Your task to perform on an android device: clear all cookies in the chrome app Image 0: 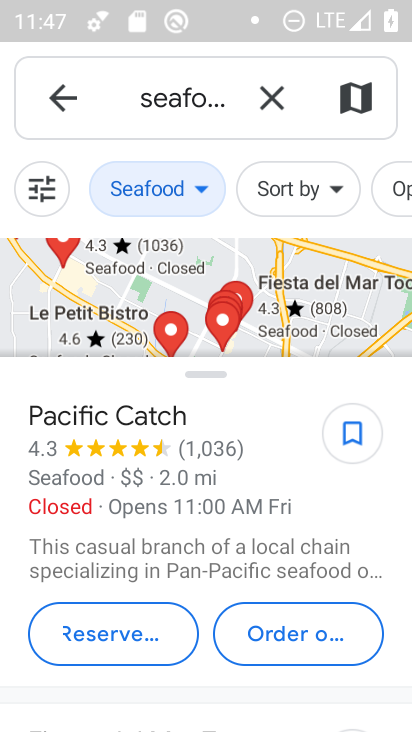
Step 0: press home button
Your task to perform on an android device: clear all cookies in the chrome app Image 1: 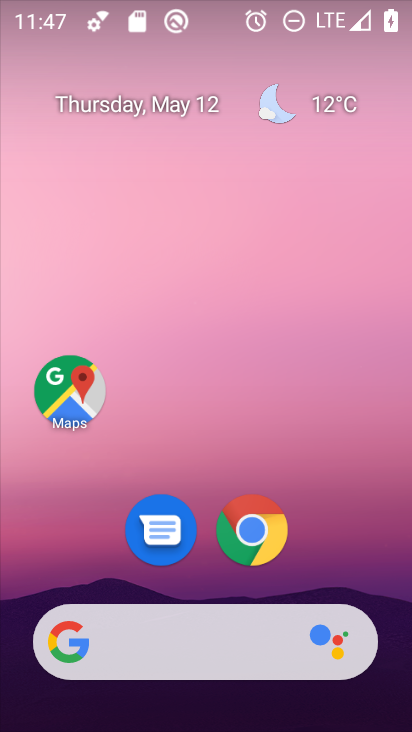
Step 1: drag from (246, 617) to (313, 287)
Your task to perform on an android device: clear all cookies in the chrome app Image 2: 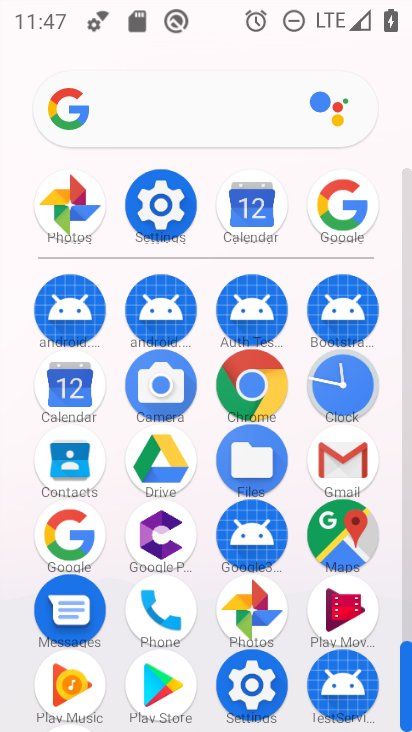
Step 2: click (245, 386)
Your task to perform on an android device: clear all cookies in the chrome app Image 3: 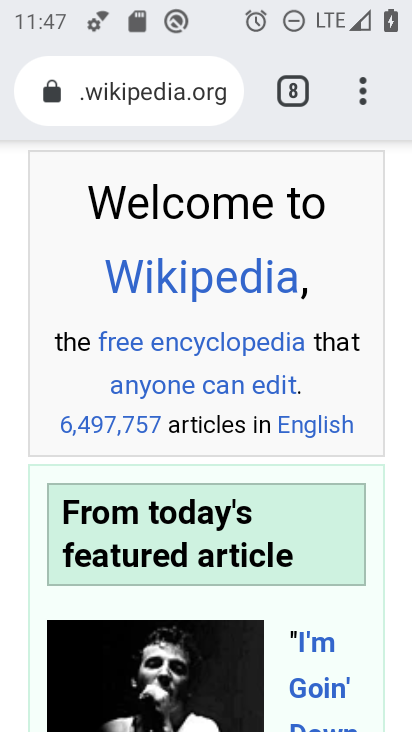
Step 3: drag from (368, 100) to (230, 551)
Your task to perform on an android device: clear all cookies in the chrome app Image 4: 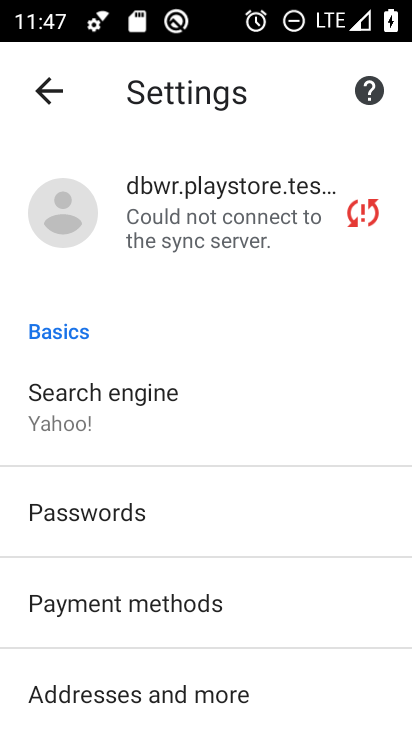
Step 4: drag from (209, 569) to (320, 268)
Your task to perform on an android device: clear all cookies in the chrome app Image 5: 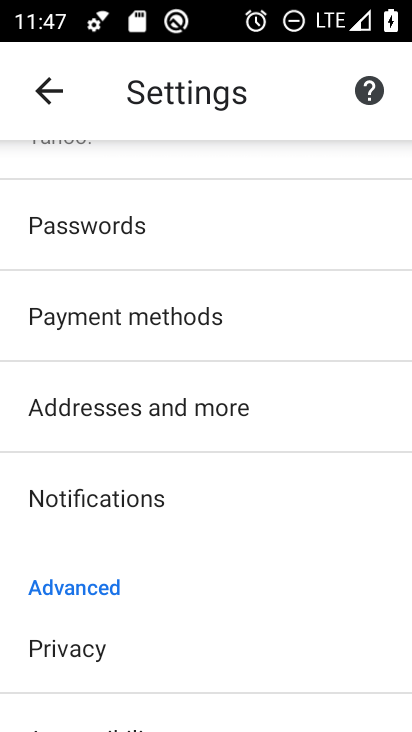
Step 5: click (90, 645)
Your task to perform on an android device: clear all cookies in the chrome app Image 6: 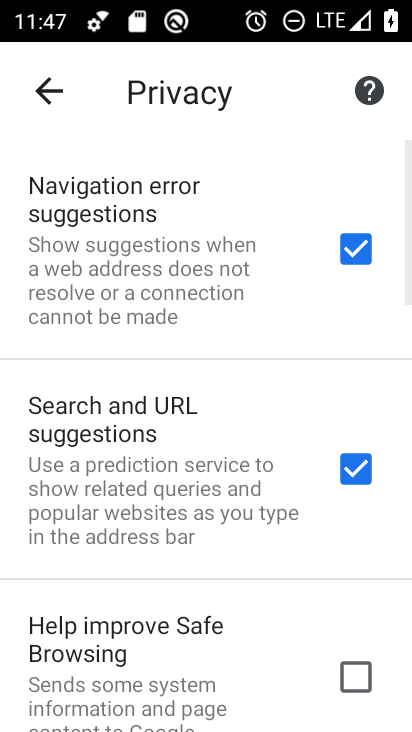
Step 6: drag from (202, 651) to (402, 152)
Your task to perform on an android device: clear all cookies in the chrome app Image 7: 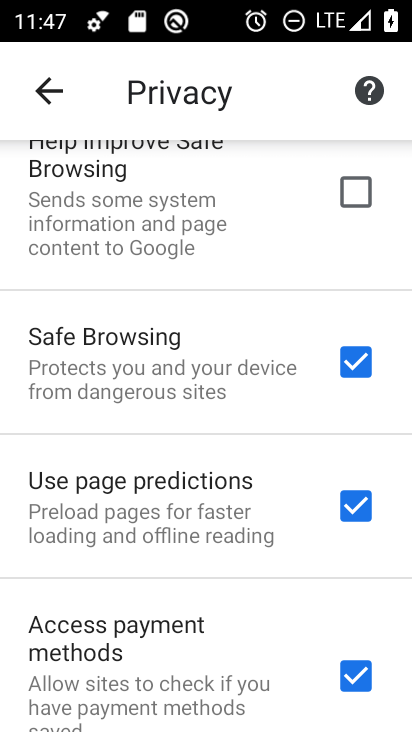
Step 7: drag from (195, 635) to (379, 133)
Your task to perform on an android device: clear all cookies in the chrome app Image 8: 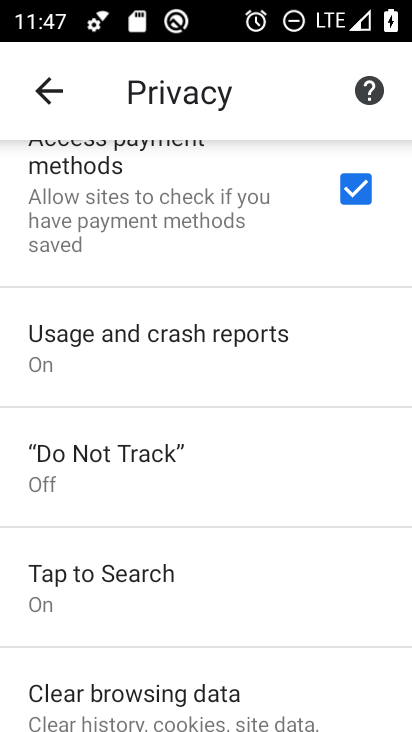
Step 8: drag from (248, 666) to (405, 167)
Your task to perform on an android device: clear all cookies in the chrome app Image 9: 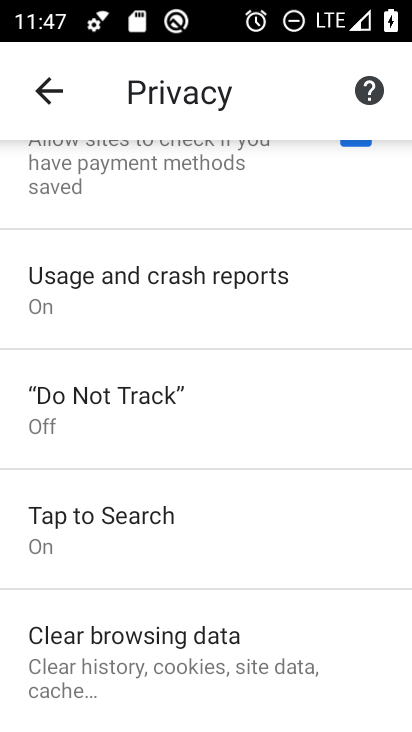
Step 9: click (128, 662)
Your task to perform on an android device: clear all cookies in the chrome app Image 10: 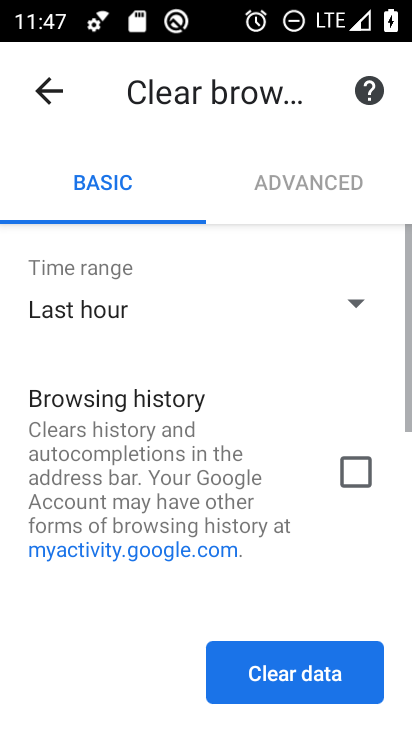
Step 10: drag from (235, 548) to (410, 243)
Your task to perform on an android device: clear all cookies in the chrome app Image 11: 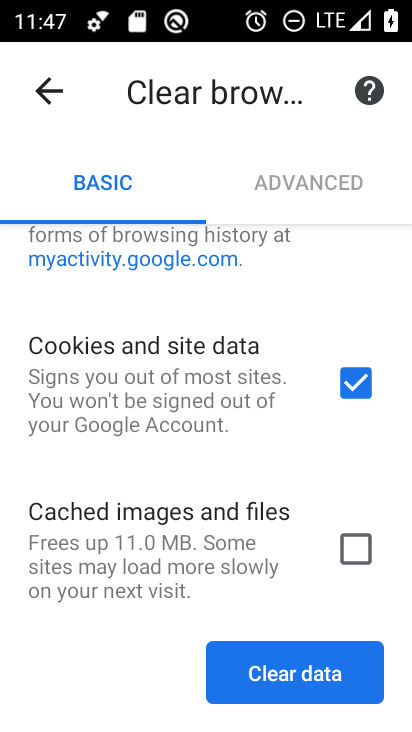
Step 11: click (281, 671)
Your task to perform on an android device: clear all cookies in the chrome app Image 12: 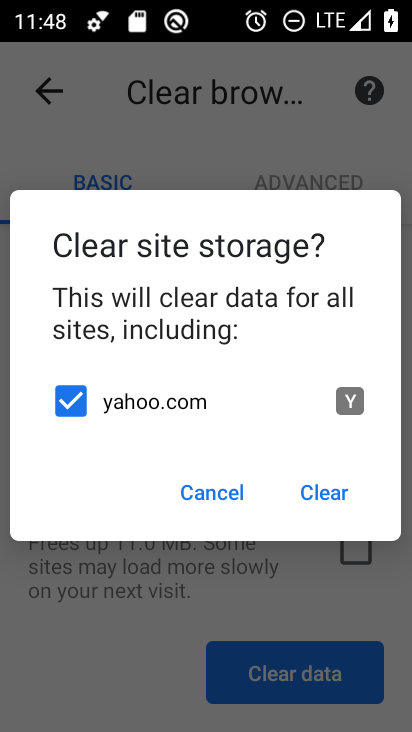
Step 12: click (329, 498)
Your task to perform on an android device: clear all cookies in the chrome app Image 13: 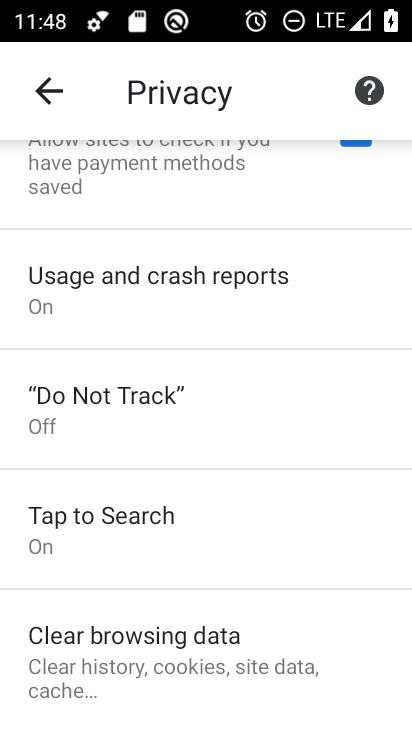
Step 13: task complete